Your task to perform on an android device: Go to sound settings Image 0: 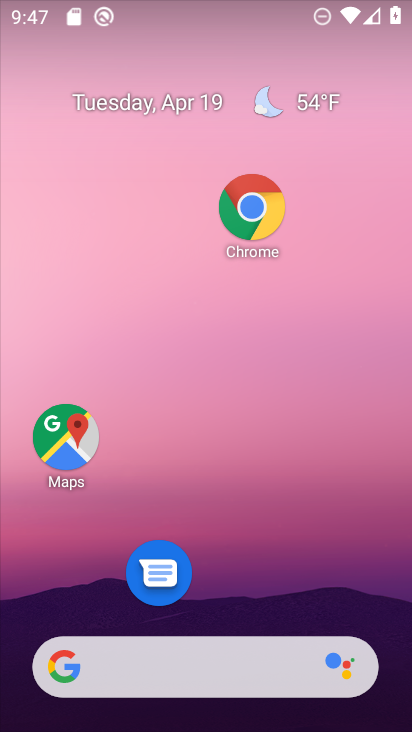
Step 0: drag from (200, 628) to (274, 87)
Your task to perform on an android device: Go to sound settings Image 1: 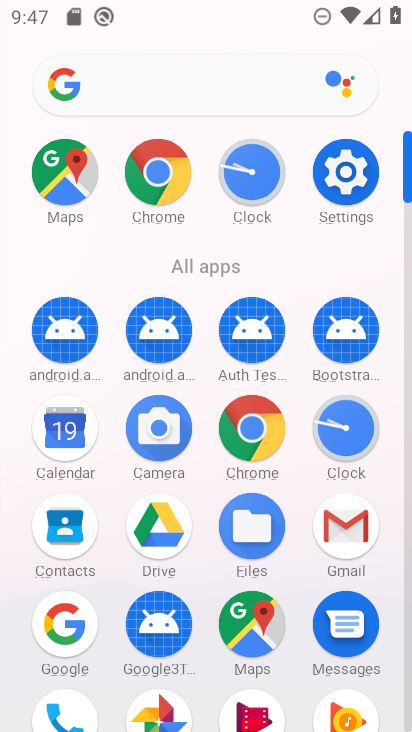
Step 1: click (349, 178)
Your task to perform on an android device: Go to sound settings Image 2: 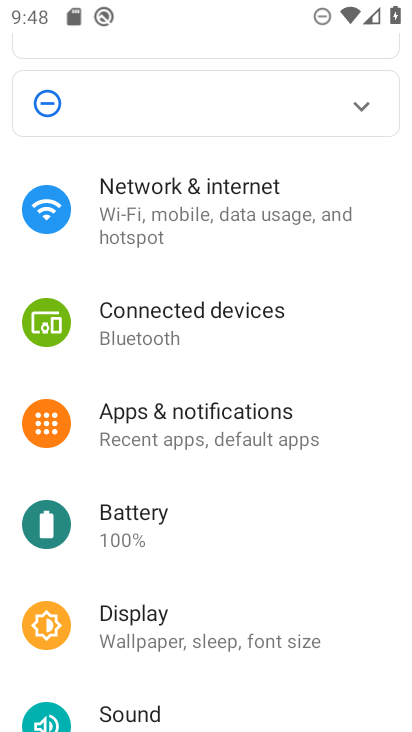
Step 2: drag from (258, 679) to (340, 261)
Your task to perform on an android device: Go to sound settings Image 3: 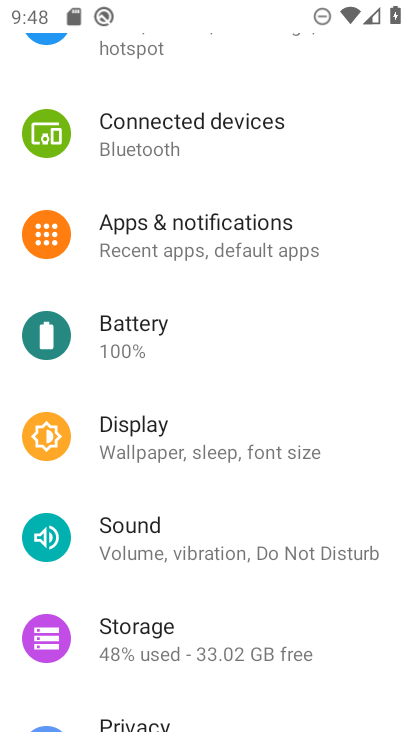
Step 3: click (180, 548)
Your task to perform on an android device: Go to sound settings Image 4: 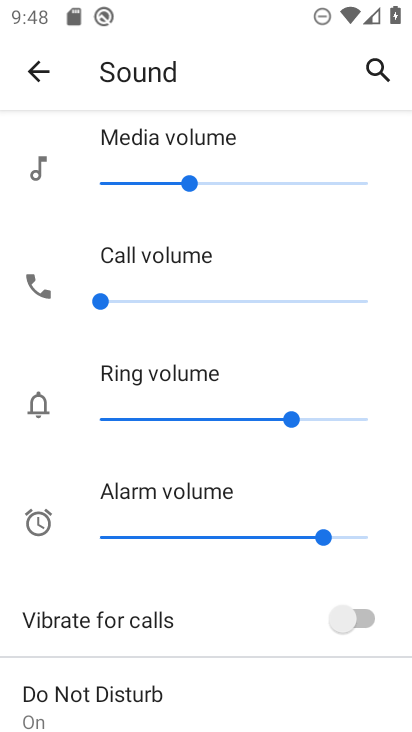
Step 4: drag from (196, 677) to (272, 204)
Your task to perform on an android device: Go to sound settings Image 5: 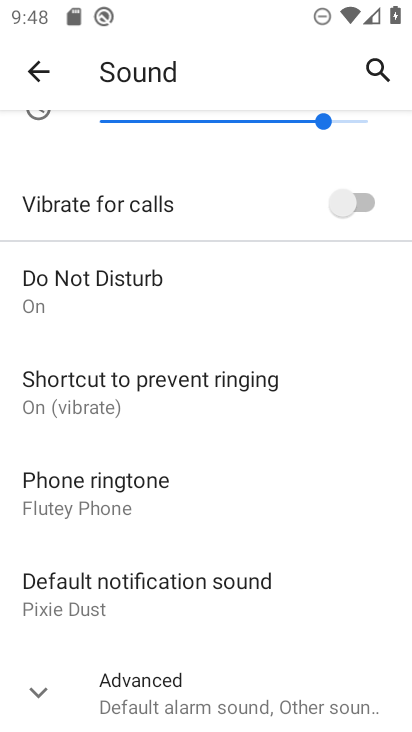
Step 5: click (148, 696)
Your task to perform on an android device: Go to sound settings Image 6: 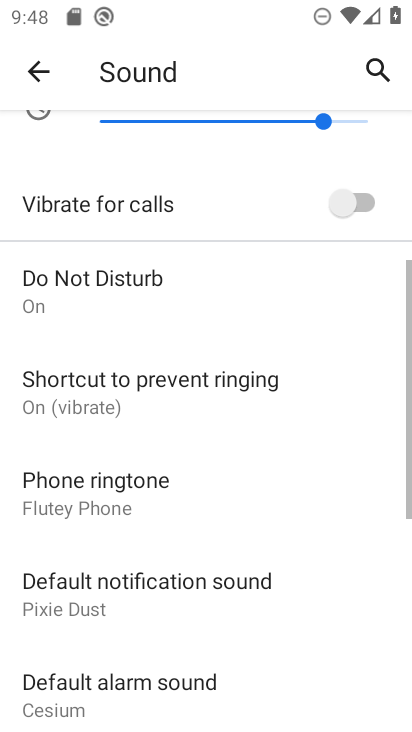
Step 6: task complete